Your task to perform on an android device: Open Amazon Image 0: 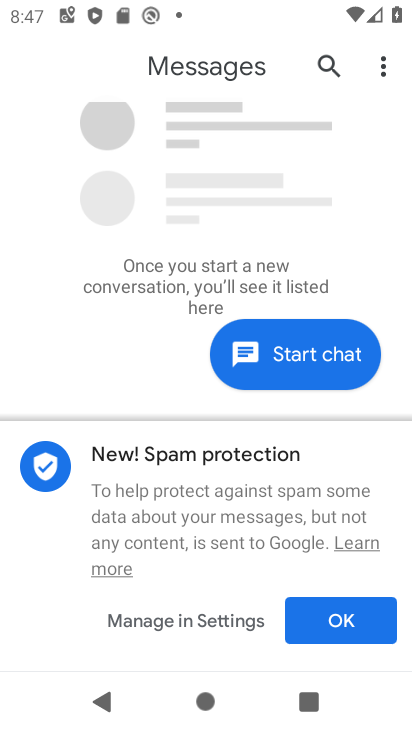
Step 0: press home button
Your task to perform on an android device: Open Amazon Image 1: 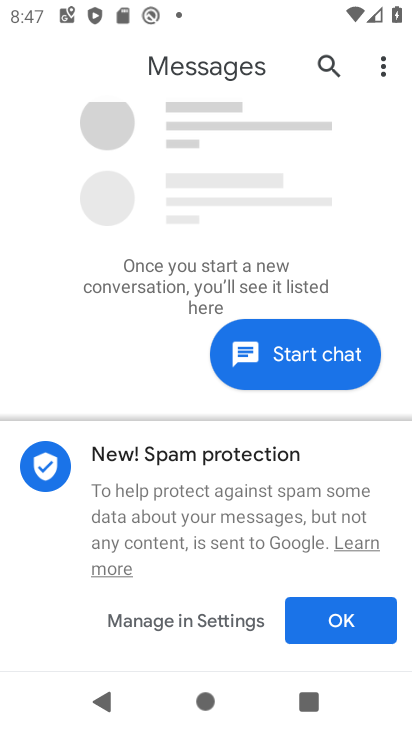
Step 1: press home button
Your task to perform on an android device: Open Amazon Image 2: 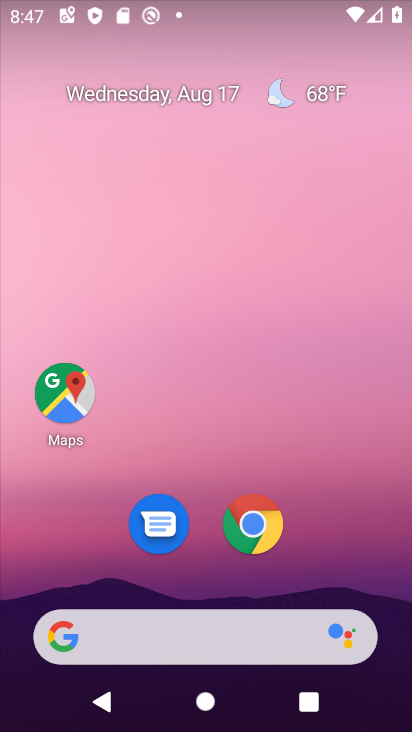
Step 2: click (256, 514)
Your task to perform on an android device: Open Amazon Image 3: 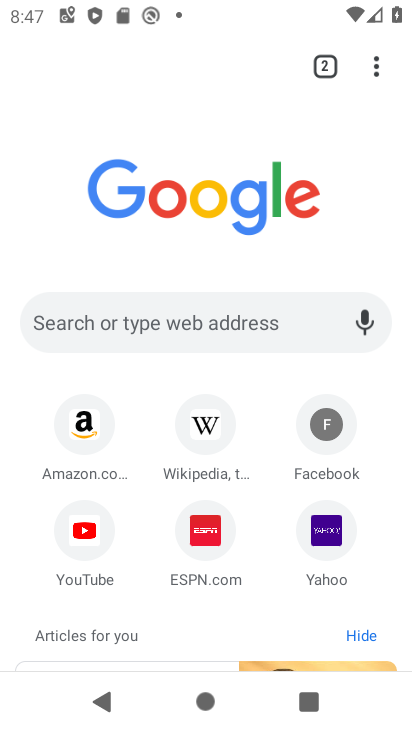
Step 3: click (93, 433)
Your task to perform on an android device: Open Amazon Image 4: 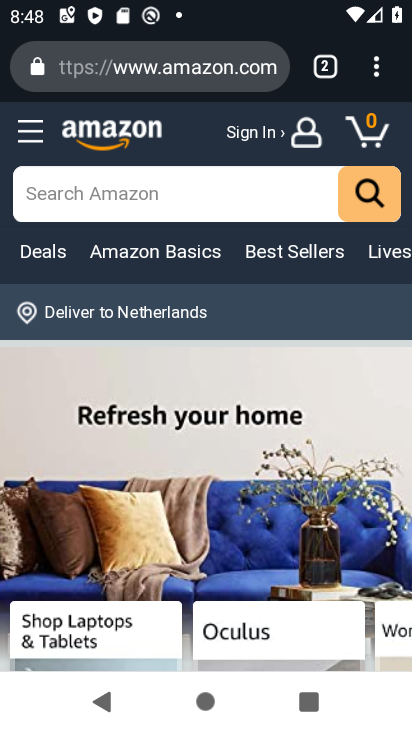
Step 4: task complete